Your task to perform on an android device: move an email to a new category in the gmail app Image 0: 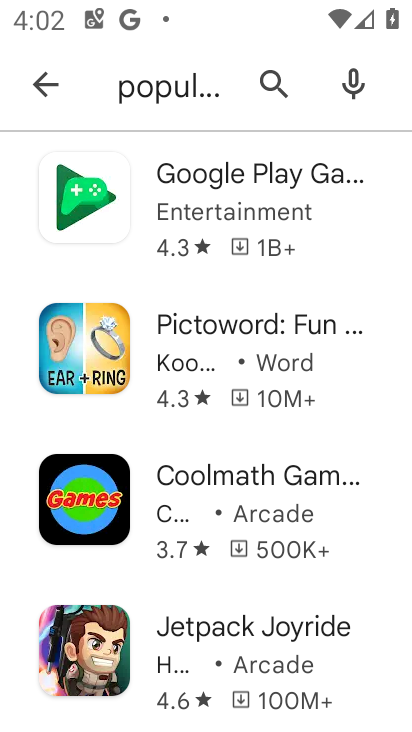
Step 0: press home button
Your task to perform on an android device: move an email to a new category in the gmail app Image 1: 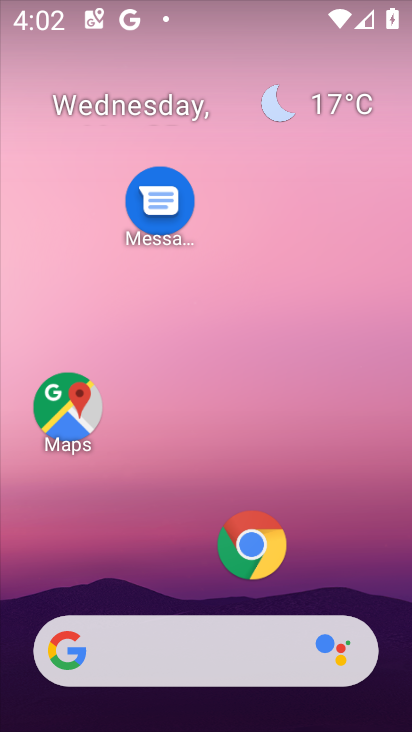
Step 1: drag from (140, 534) to (229, 0)
Your task to perform on an android device: move an email to a new category in the gmail app Image 2: 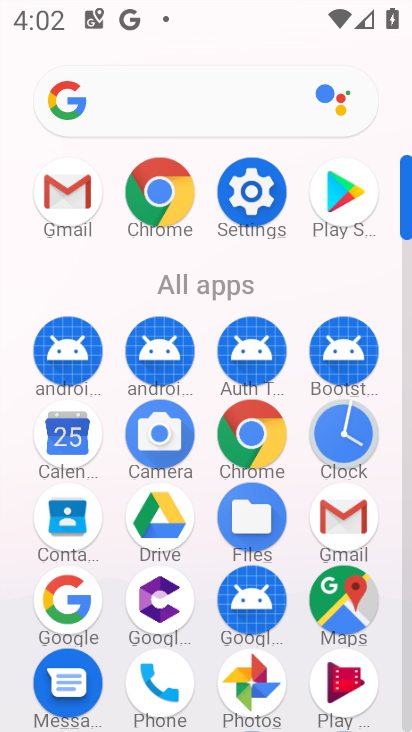
Step 2: click (60, 174)
Your task to perform on an android device: move an email to a new category in the gmail app Image 3: 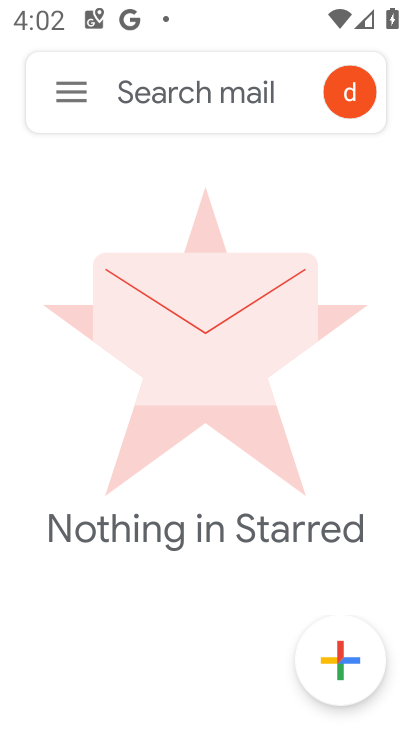
Step 3: click (82, 84)
Your task to perform on an android device: move an email to a new category in the gmail app Image 4: 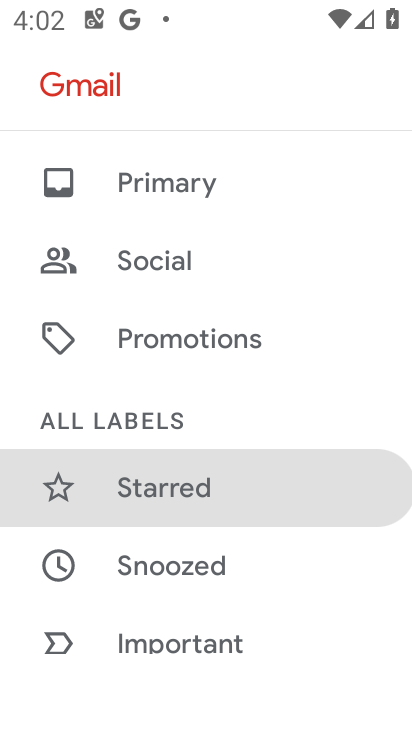
Step 4: click (245, 193)
Your task to perform on an android device: move an email to a new category in the gmail app Image 5: 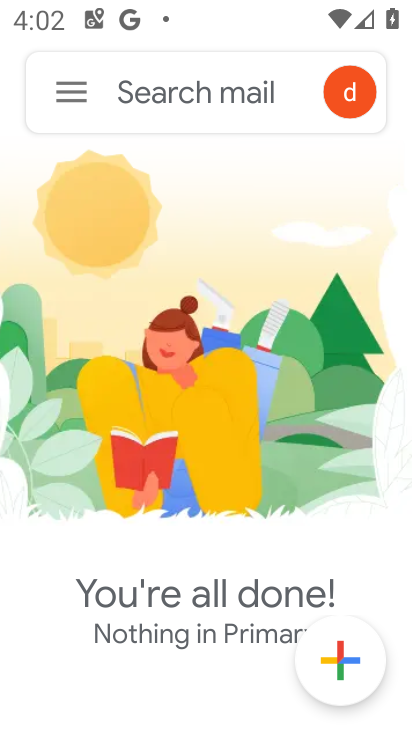
Step 5: click (87, 90)
Your task to perform on an android device: move an email to a new category in the gmail app Image 6: 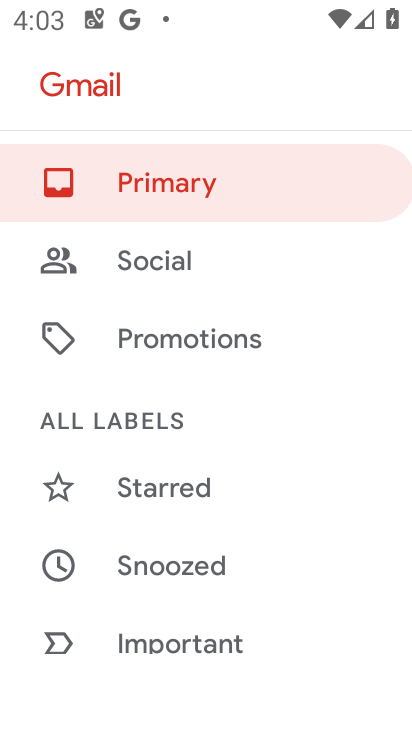
Step 6: drag from (208, 644) to (246, 353)
Your task to perform on an android device: move an email to a new category in the gmail app Image 7: 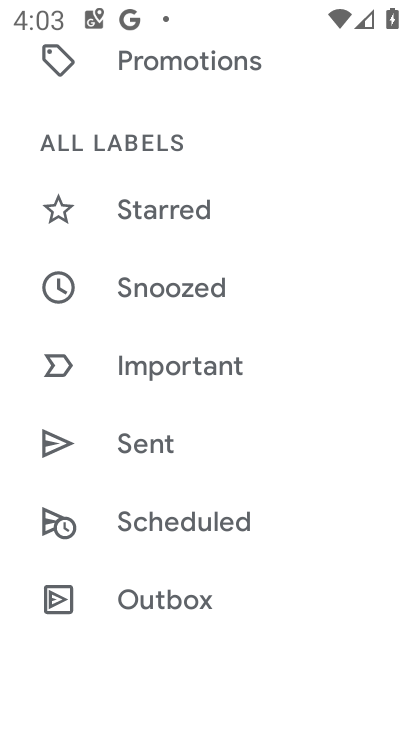
Step 7: drag from (218, 552) to (230, 403)
Your task to perform on an android device: move an email to a new category in the gmail app Image 8: 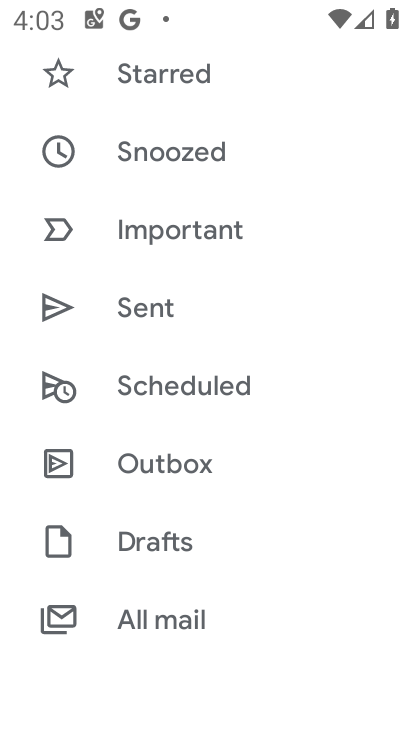
Step 8: click (175, 613)
Your task to perform on an android device: move an email to a new category in the gmail app Image 9: 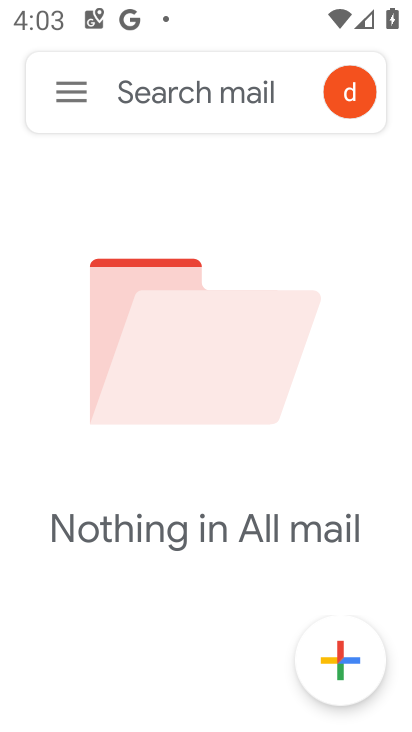
Step 9: task complete